Your task to perform on an android device: see creations saved in the google photos Image 0: 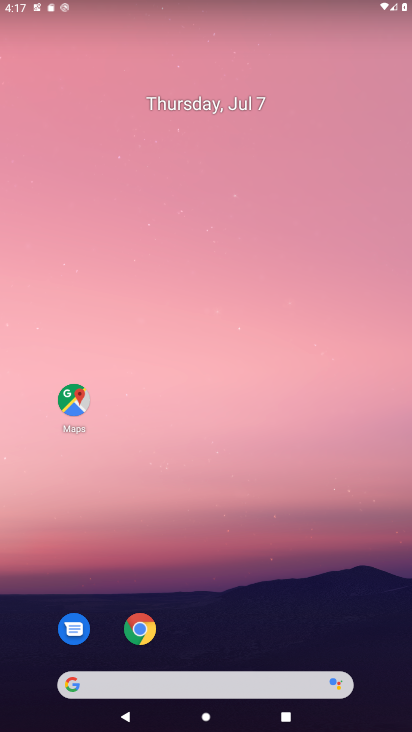
Step 0: drag from (227, 648) to (273, 134)
Your task to perform on an android device: see creations saved in the google photos Image 1: 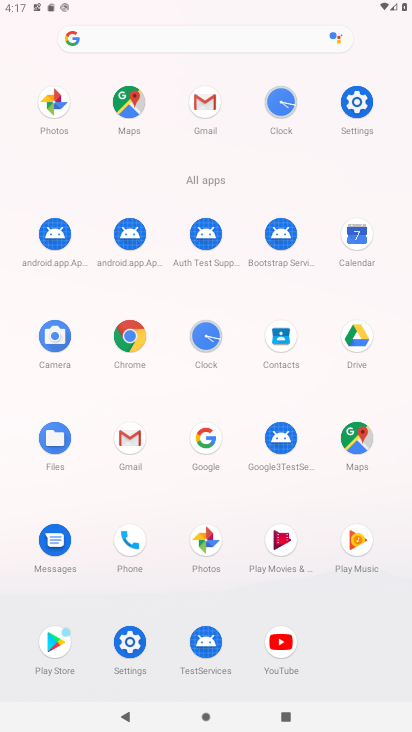
Step 1: click (197, 539)
Your task to perform on an android device: see creations saved in the google photos Image 2: 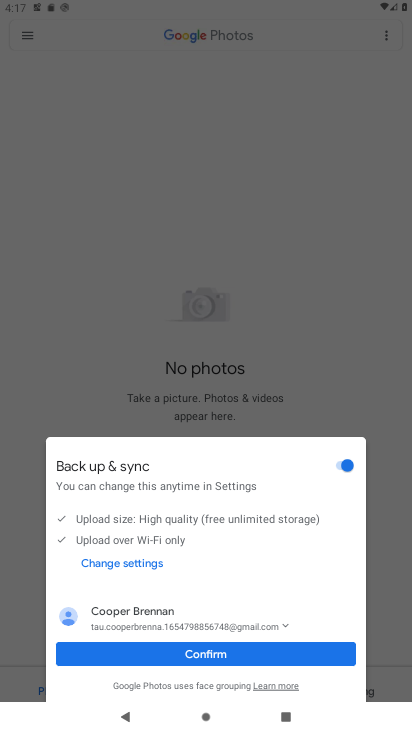
Step 2: click (230, 660)
Your task to perform on an android device: see creations saved in the google photos Image 3: 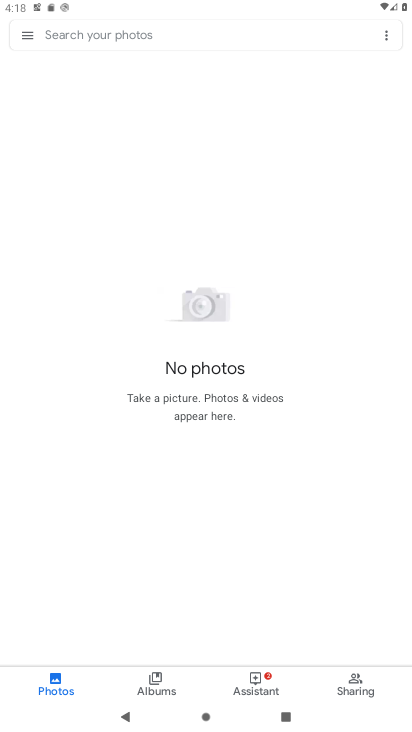
Step 3: click (115, 29)
Your task to perform on an android device: see creations saved in the google photos Image 4: 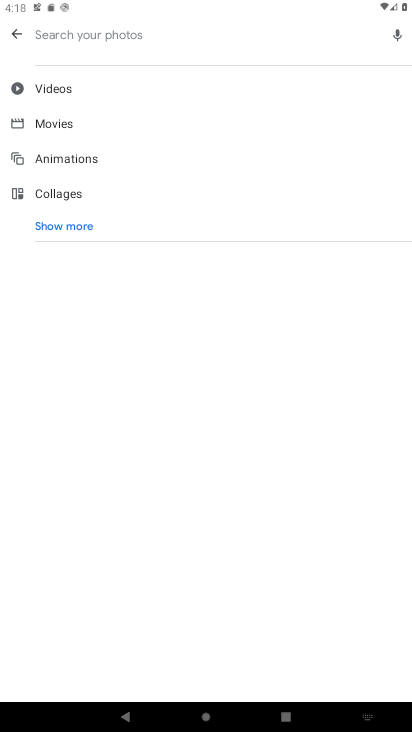
Step 4: click (71, 229)
Your task to perform on an android device: see creations saved in the google photos Image 5: 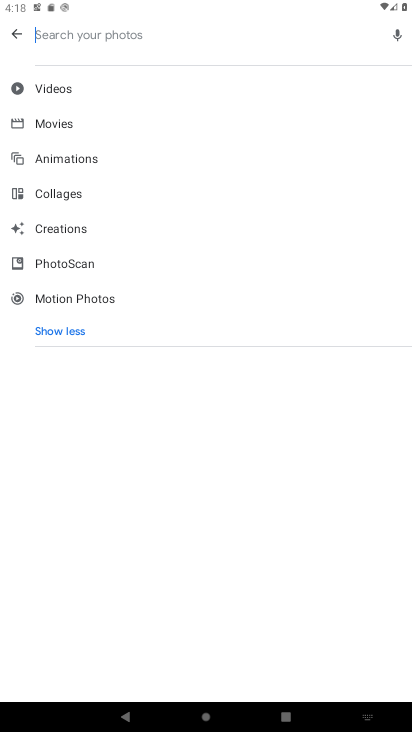
Step 5: click (69, 234)
Your task to perform on an android device: see creations saved in the google photos Image 6: 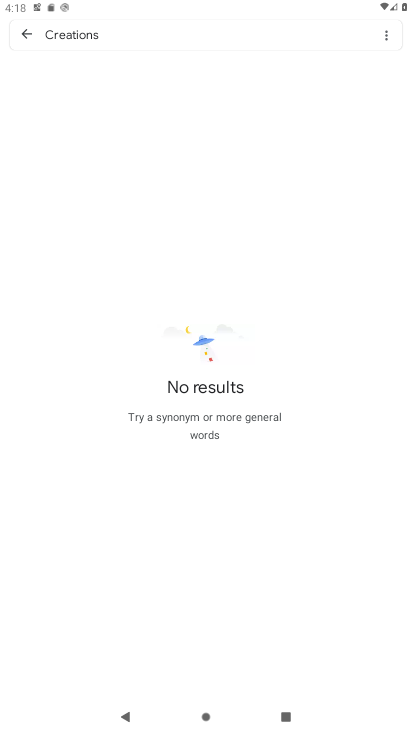
Step 6: task complete